Your task to perform on an android device: Open the map Image 0: 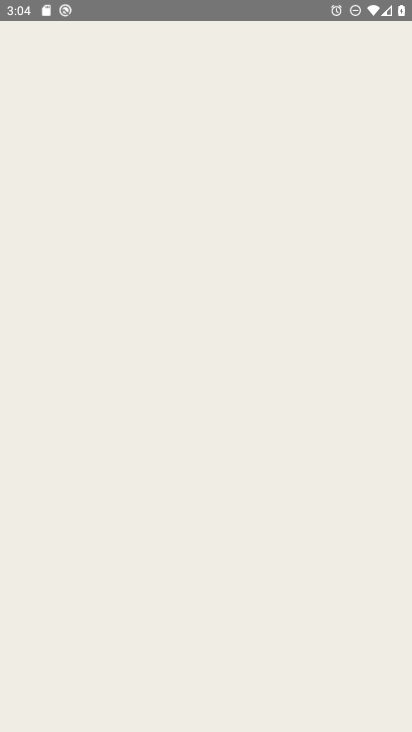
Step 0: press home button
Your task to perform on an android device: Open the map Image 1: 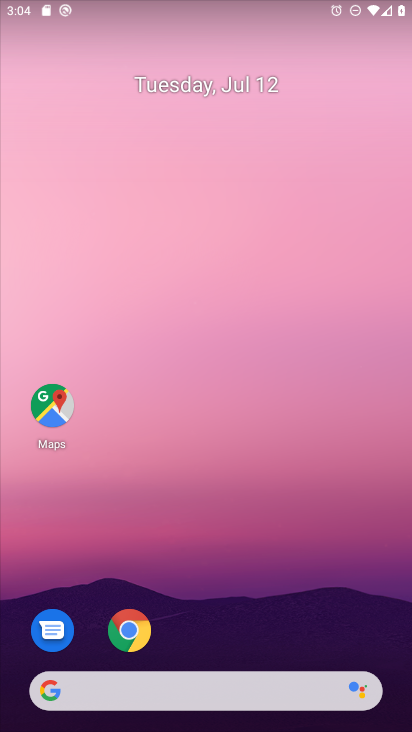
Step 1: drag from (204, 651) to (232, 249)
Your task to perform on an android device: Open the map Image 2: 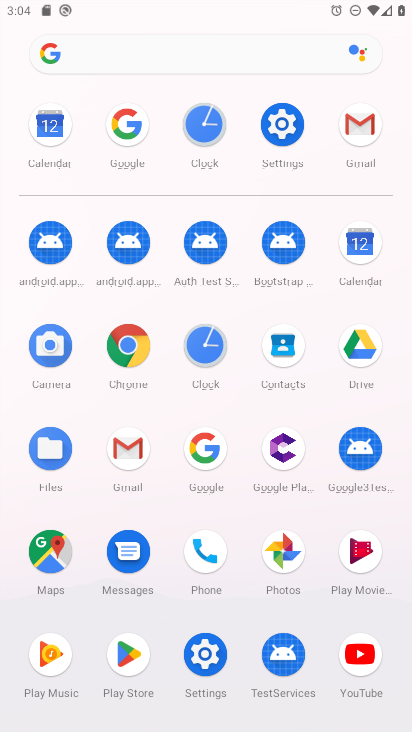
Step 2: click (39, 572)
Your task to perform on an android device: Open the map Image 3: 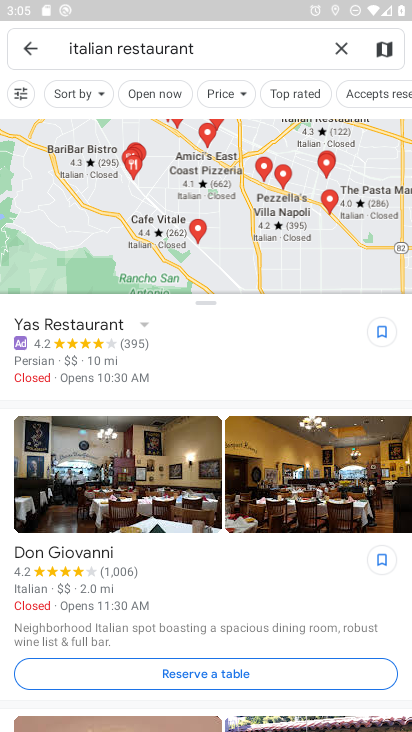
Step 3: task complete